Your task to perform on an android device: Open the web browser Image 0: 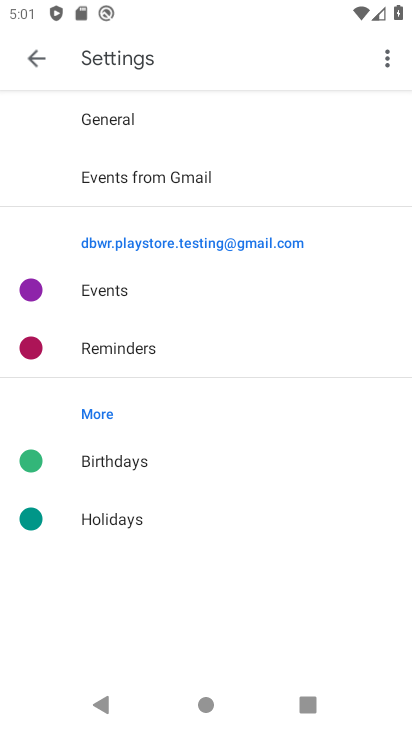
Step 0: press home button
Your task to perform on an android device: Open the web browser Image 1: 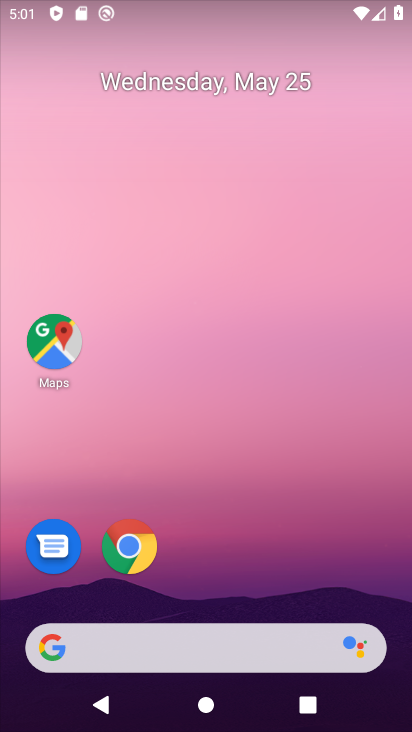
Step 1: click (140, 556)
Your task to perform on an android device: Open the web browser Image 2: 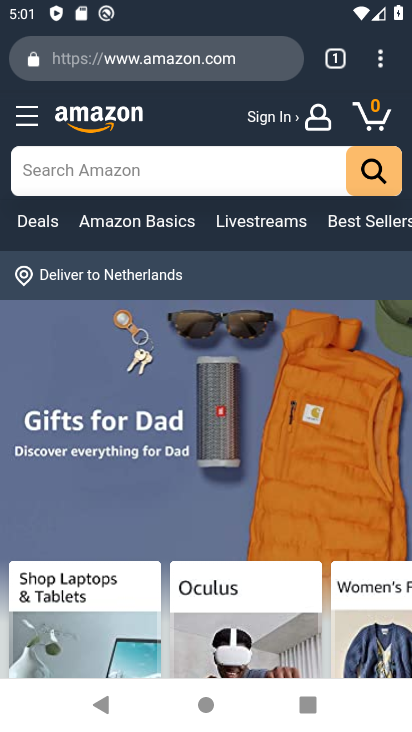
Step 2: task complete